Your task to perform on an android device: Toggle the flashlight Image 0: 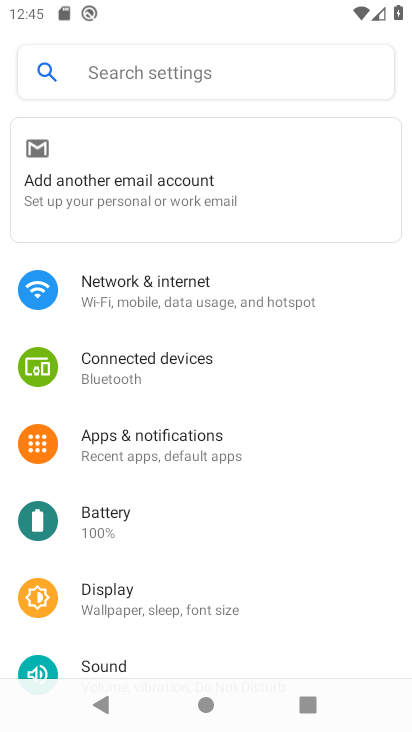
Step 0: press home button
Your task to perform on an android device: Toggle the flashlight Image 1: 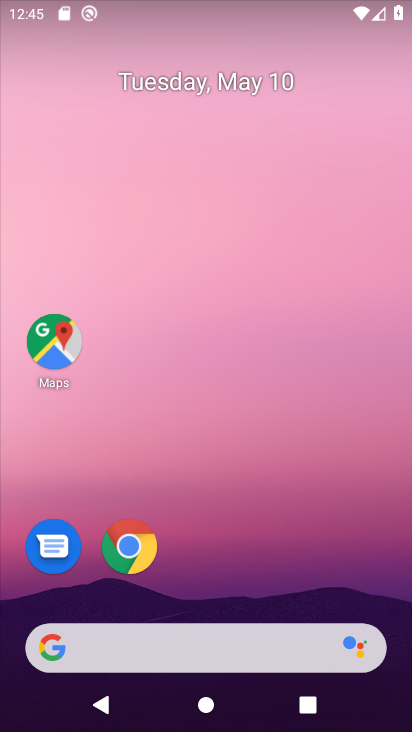
Step 1: task complete